Your task to perform on an android device: turn on translation in the chrome app Image 0: 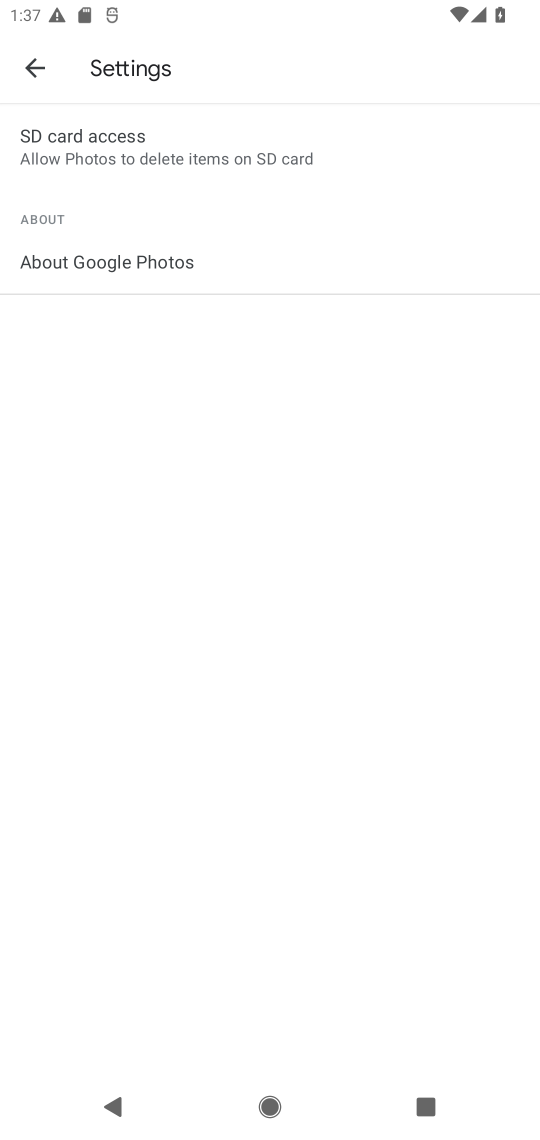
Step 0: press home button
Your task to perform on an android device: turn on translation in the chrome app Image 1: 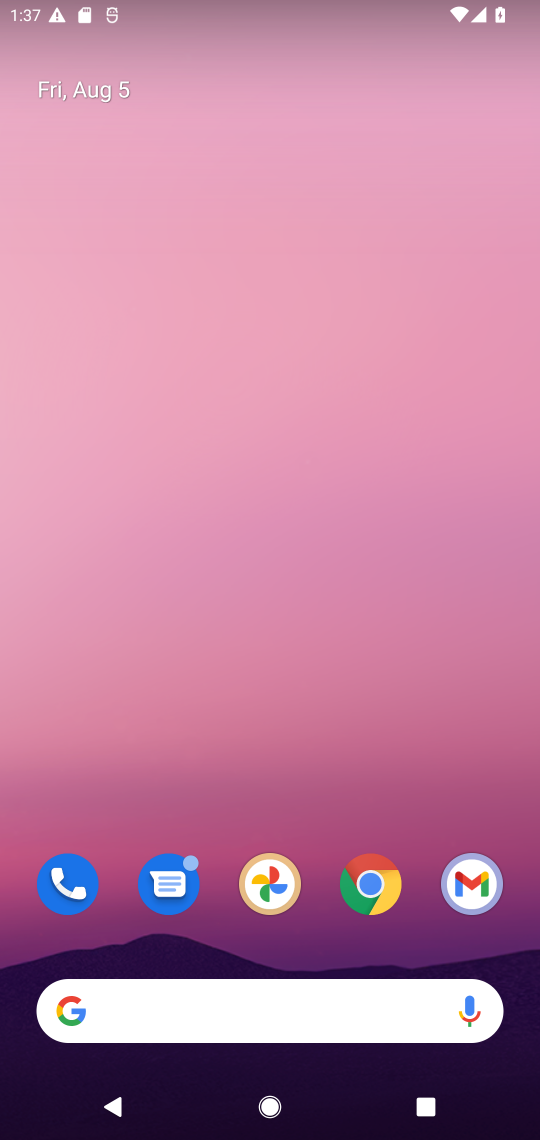
Step 1: drag from (327, 935) to (242, 55)
Your task to perform on an android device: turn on translation in the chrome app Image 2: 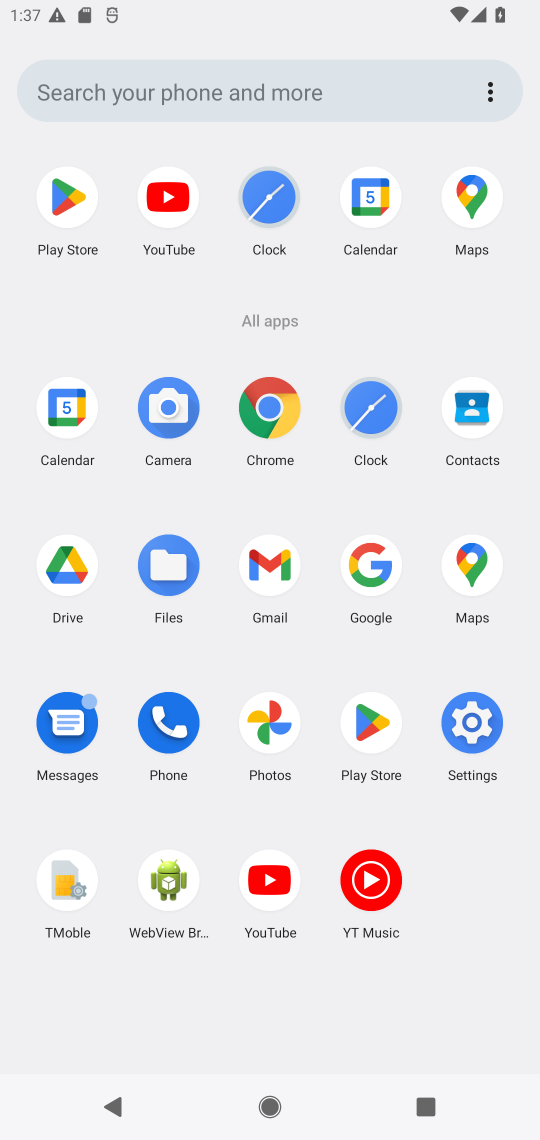
Step 2: click (286, 420)
Your task to perform on an android device: turn on translation in the chrome app Image 3: 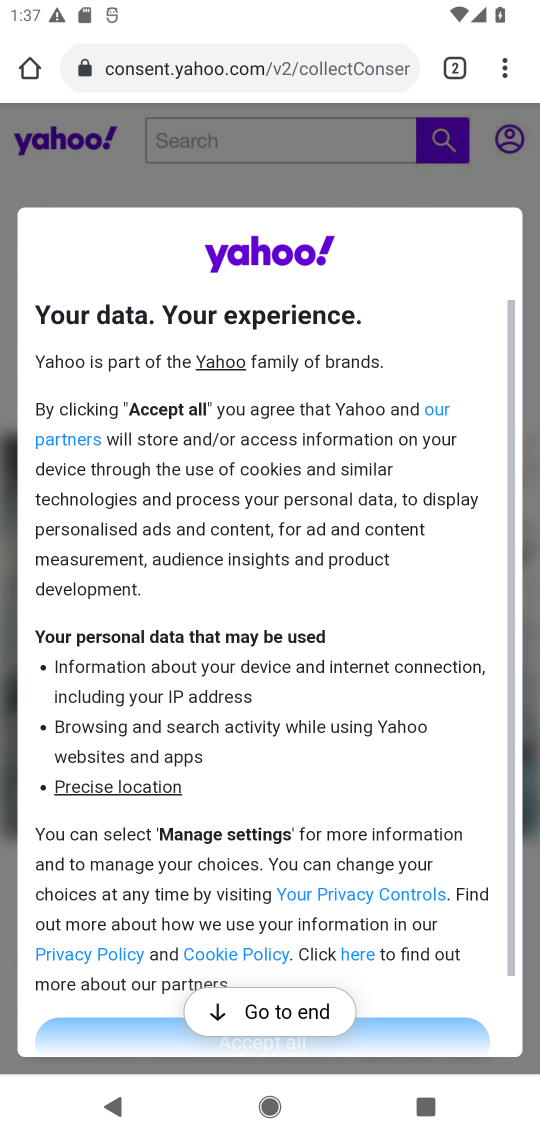
Step 3: press back button
Your task to perform on an android device: turn on translation in the chrome app Image 4: 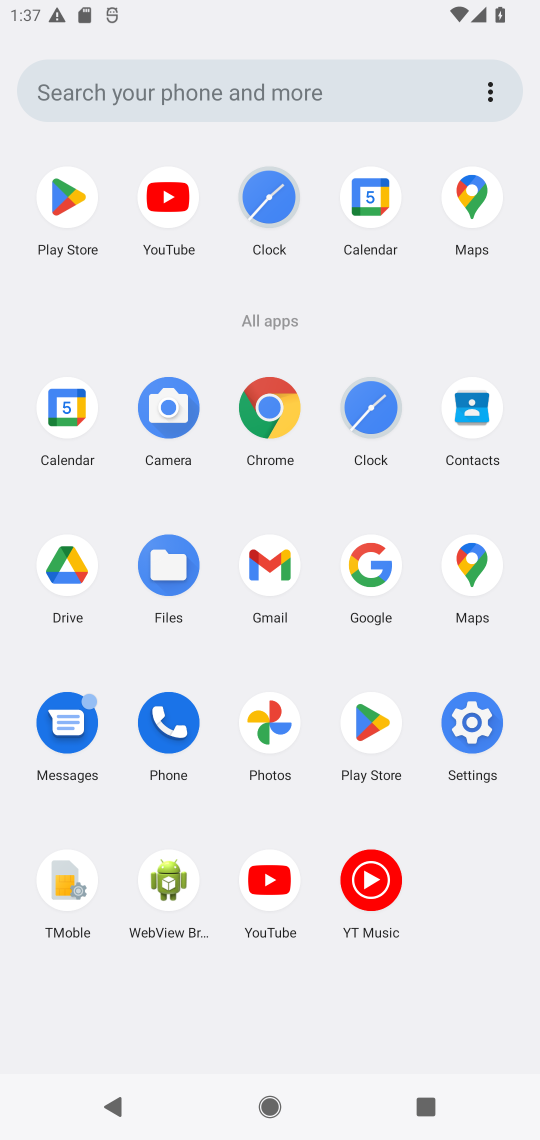
Step 4: click (267, 396)
Your task to perform on an android device: turn on translation in the chrome app Image 5: 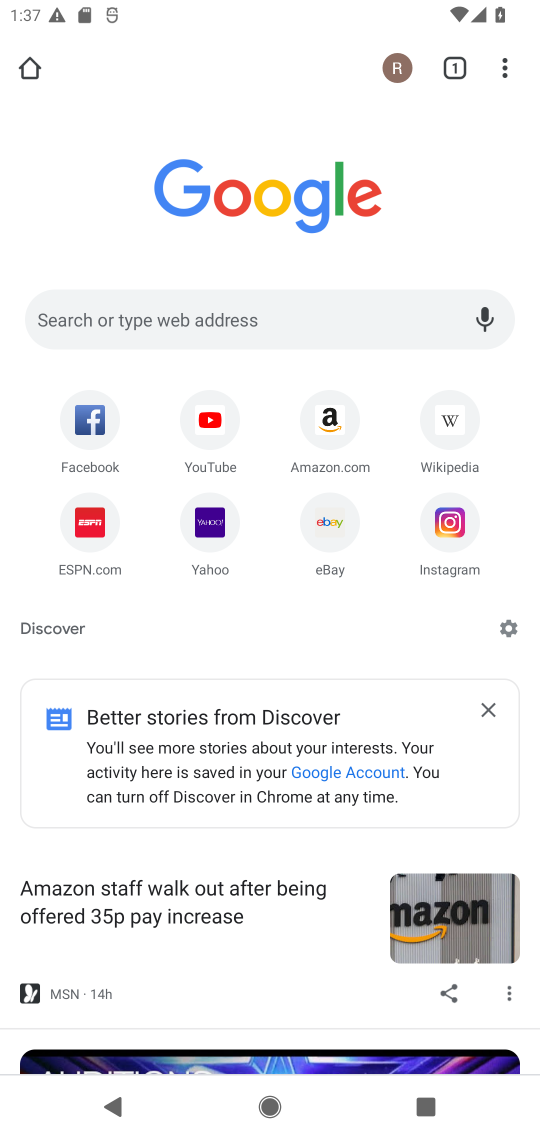
Step 5: click (505, 57)
Your task to perform on an android device: turn on translation in the chrome app Image 6: 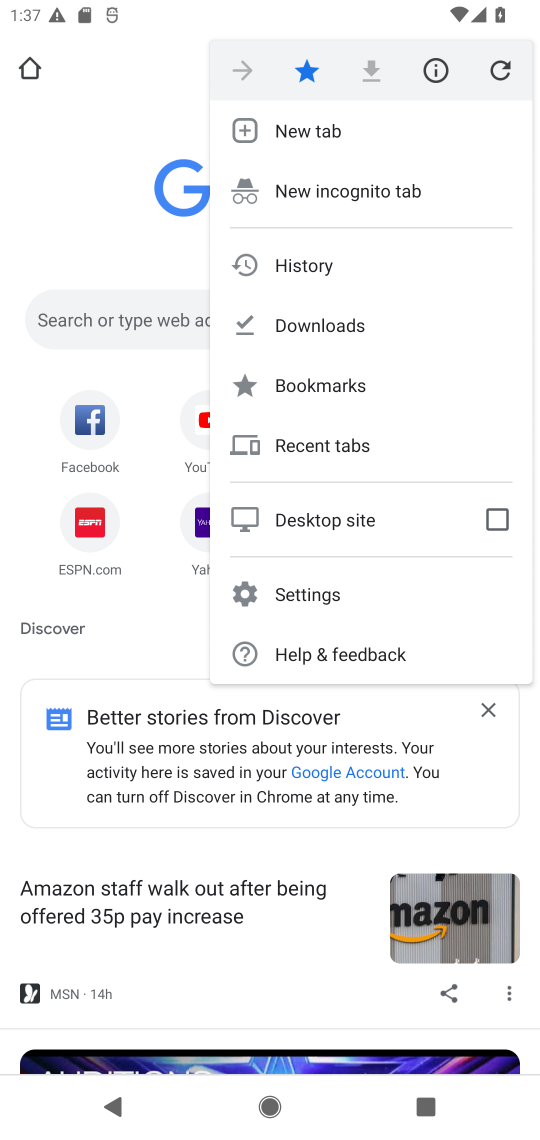
Step 6: click (283, 592)
Your task to perform on an android device: turn on translation in the chrome app Image 7: 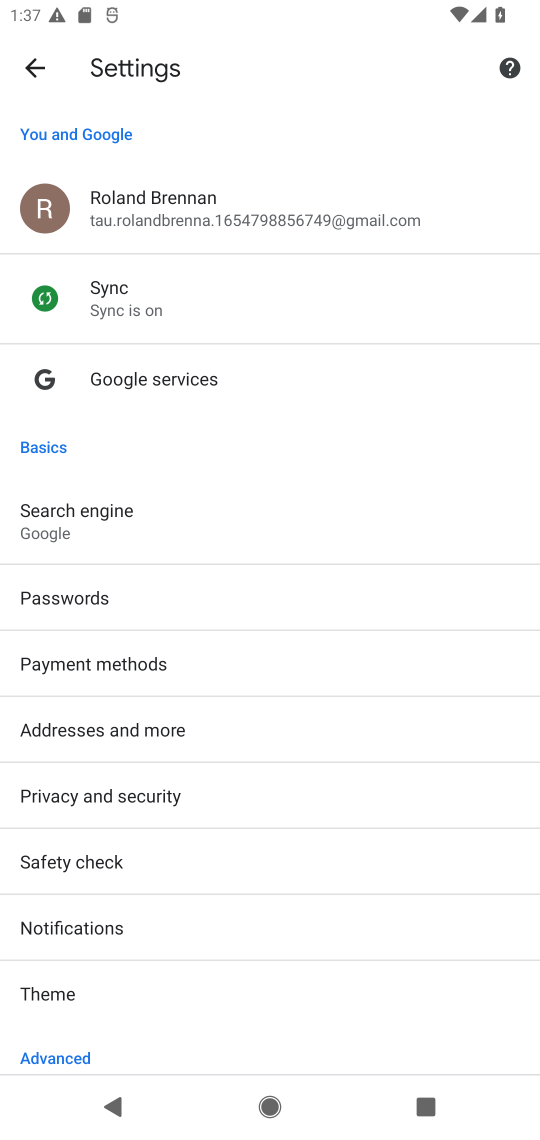
Step 7: drag from (134, 925) to (82, 308)
Your task to perform on an android device: turn on translation in the chrome app Image 8: 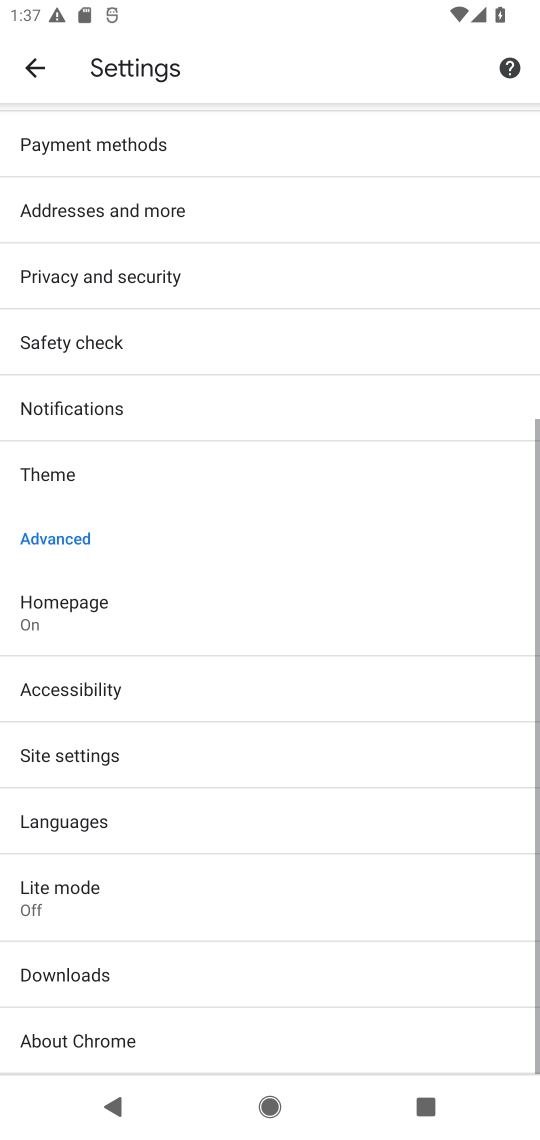
Step 8: click (104, 836)
Your task to perform on an android device: turn on translation in the chrome app Image 9: 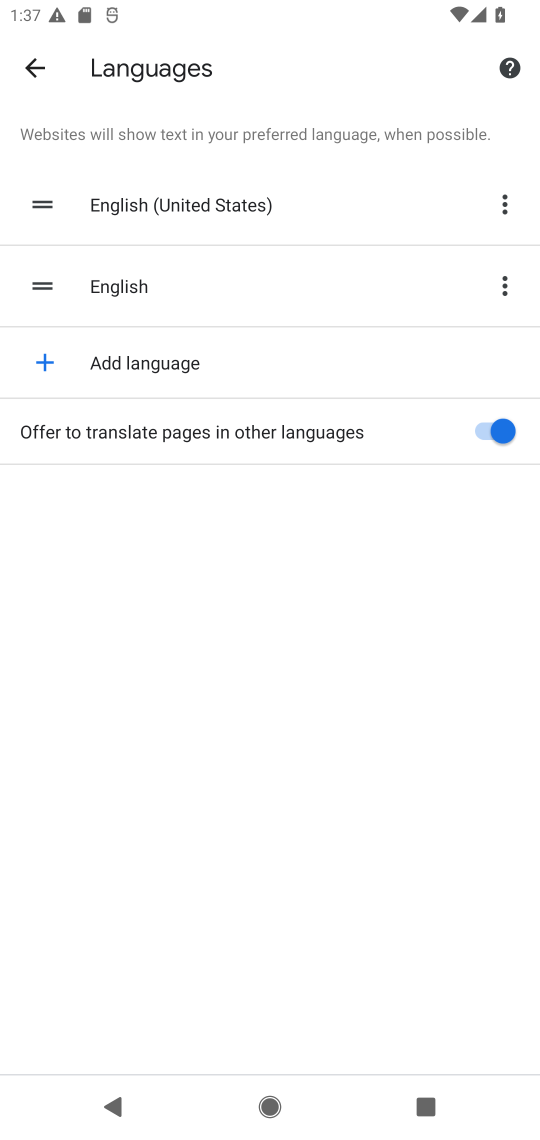
Step 9: task complete